Your task to perform on an android device: Open Wikipedia Image 0: 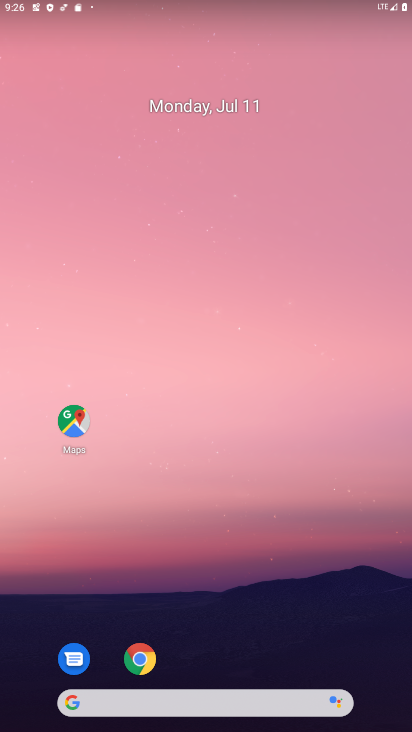
Step 0: drag from (222, 717) to (222, 165)
Your task to perform on an android device: Open Wikipedia Image 1: 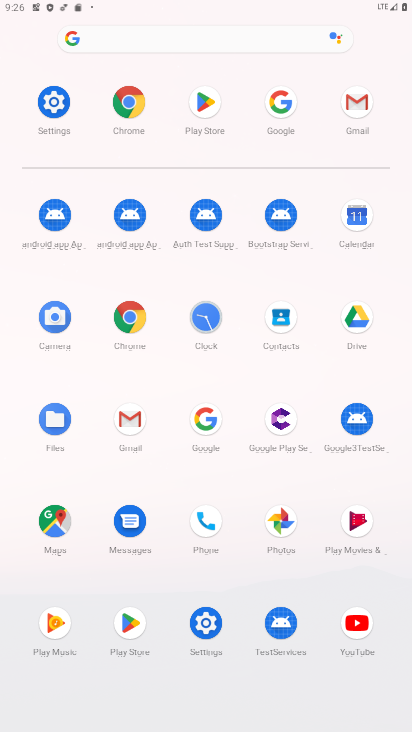
Step 1: click (127, 105)
Your task to perform on an android device: Open Wikipedia Image 2: 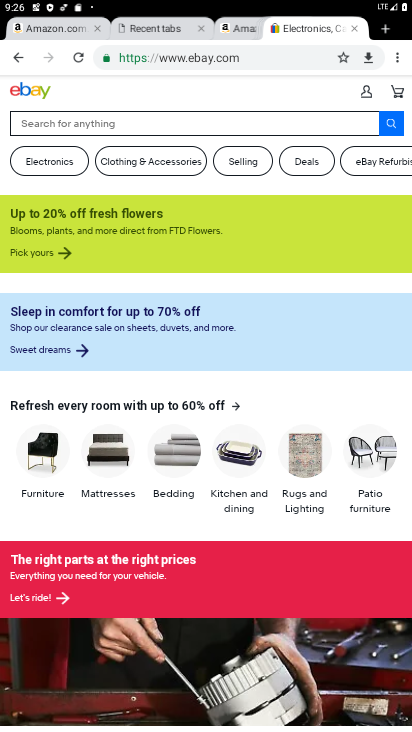
Step 2: click (398, 59)
Your task to perform on an android device: Open Wikipedia Image 3: 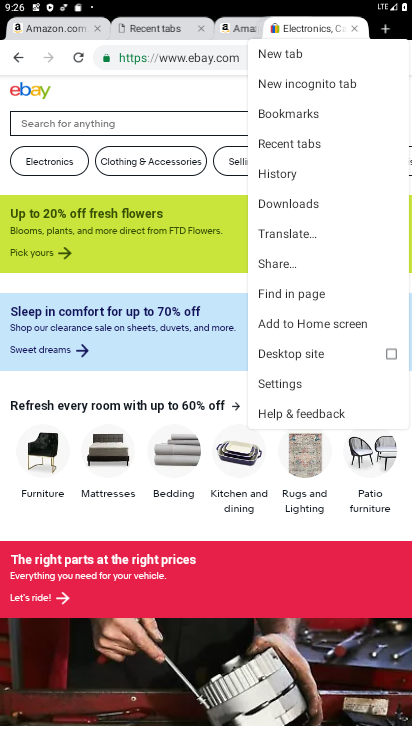
Step 3: click (283, 54)
Your task to perform on an android device: Open Wikipedia Image 4: 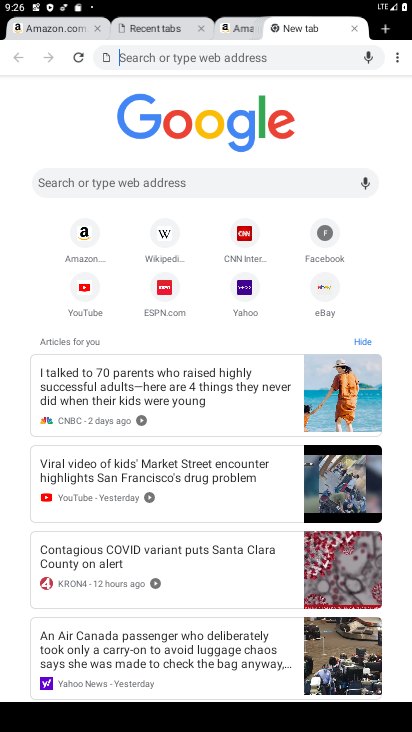
Step 4: click (167, 238)
Your task to perform on an android device: Open Wikipedia Image 5: 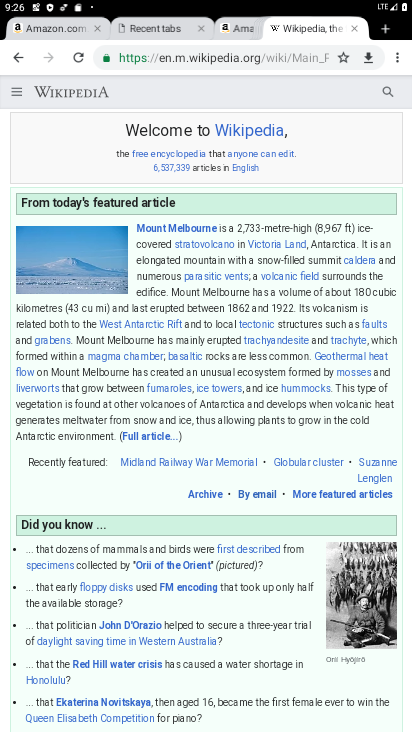
Step 5: task complete